Your task to perform on an android device: Open Amazon Image 0: 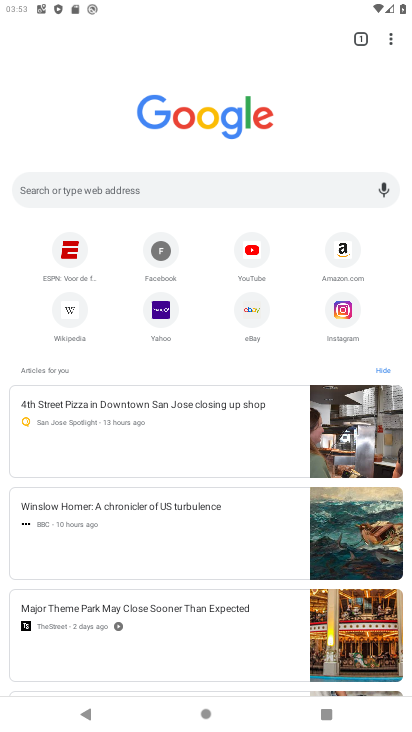
Step 0: click (331, 276)
Your task to perform on an android device: Open Amazon Image 1: 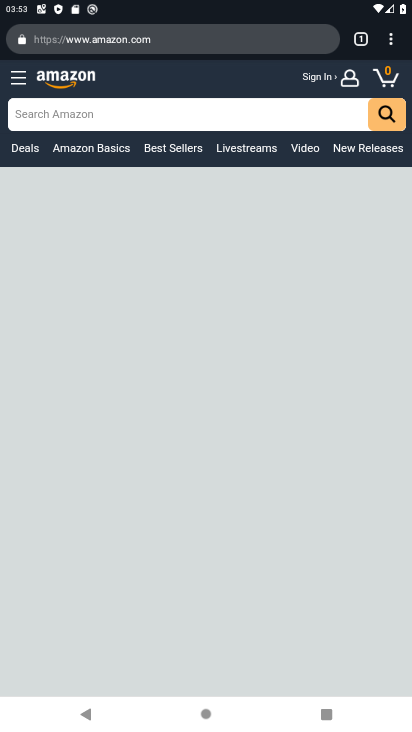
Step 1: task complete